Your task to perform on an android device: Find coffee shops on Maps Image 0: 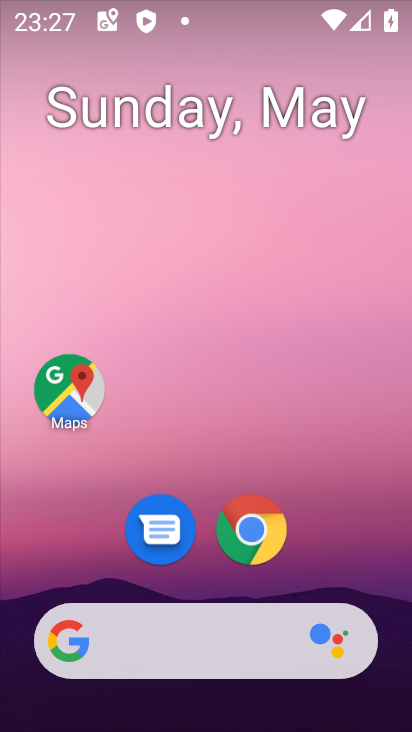
Step 0: drag from (350, 556) to (309, 153)
Your task to perform on an android device: Find coffee shops on Maps Image 1: 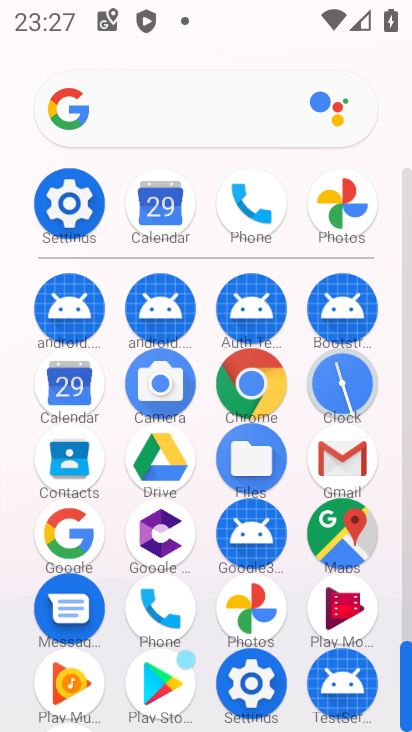
Step 1: click (269, 370)
Your task to perform on an android device: Find coffee shops on Maps Image 2: 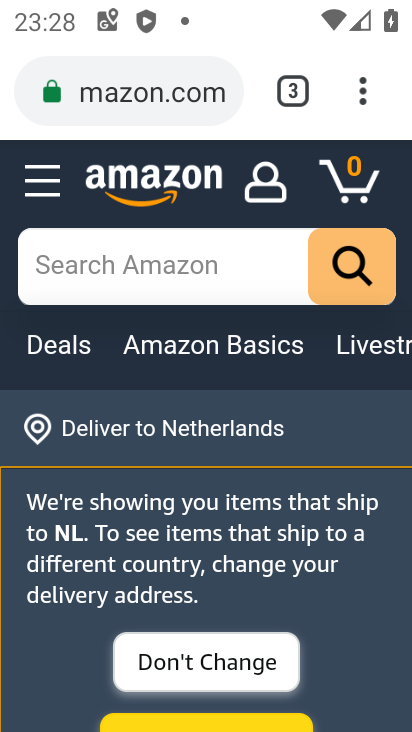
Step 2: press home button
Your task to perform on an android device: Find coffee shops on Maps Image 3: 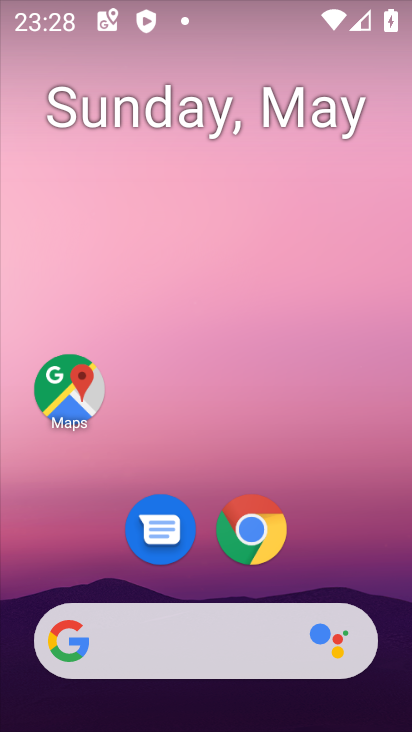
Step 3: click (71, 399)
Your task to perform on an android device: Find coffee shops on Maps Image 4: 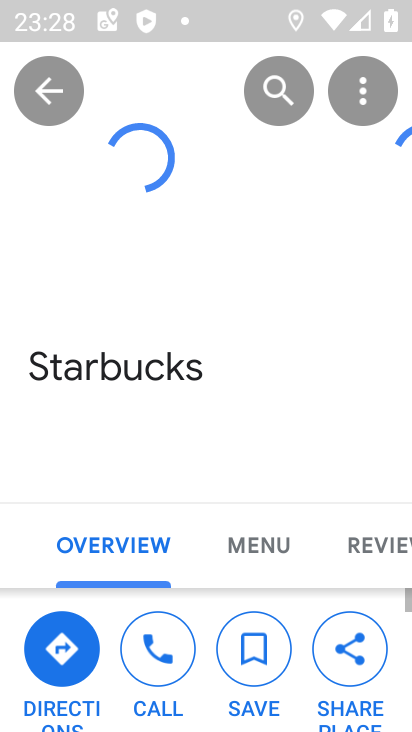
Step 4: click (284, 100)
Your task to perform on an android device: Find coffee shops on Maps Image 5: 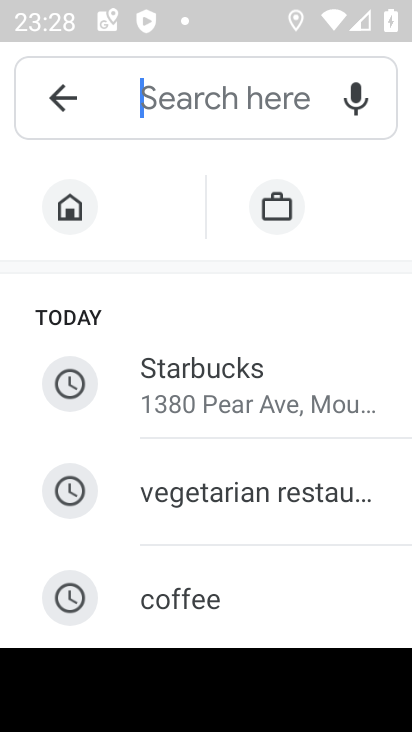
Step 5: click (163, 99)
Your task to perform on an android device: Find coffee shops on Maps Image 6: 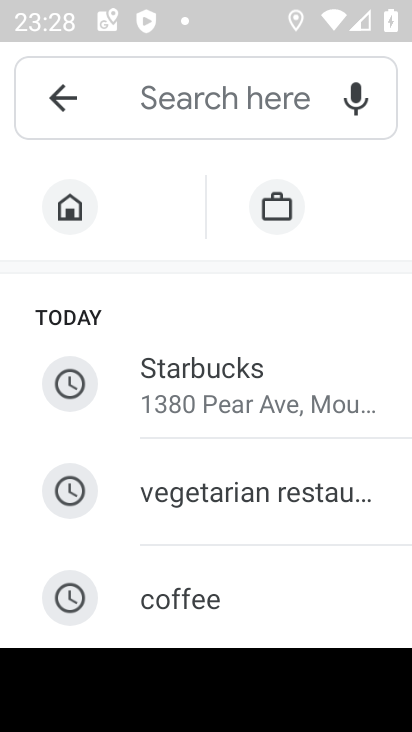
Step 6: click (272, 588)
Your task to perform on an android device: Find coffee shops on Maps Image 7: 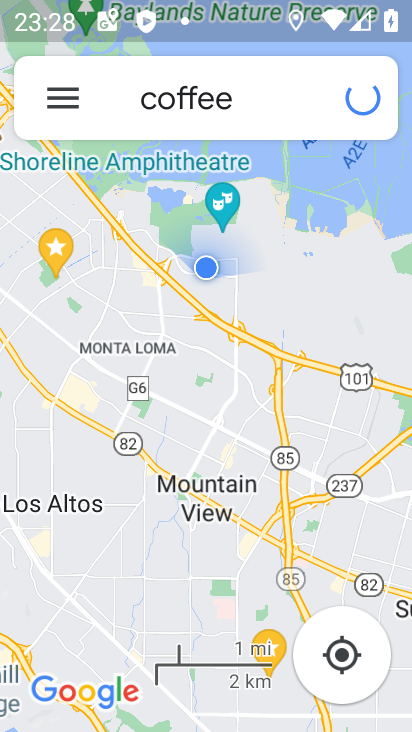
Step 7: task complete